Your task to perform on an android device: Open Amazon Image 0: 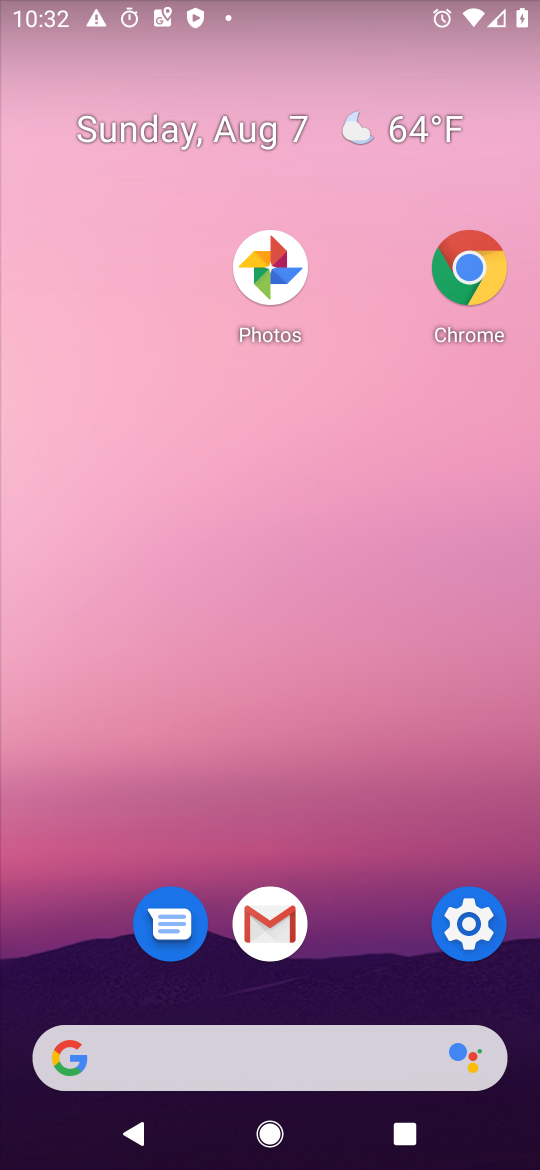
Step 0: press home button
Your task to perform on an android device: Open Amazon Image 1: 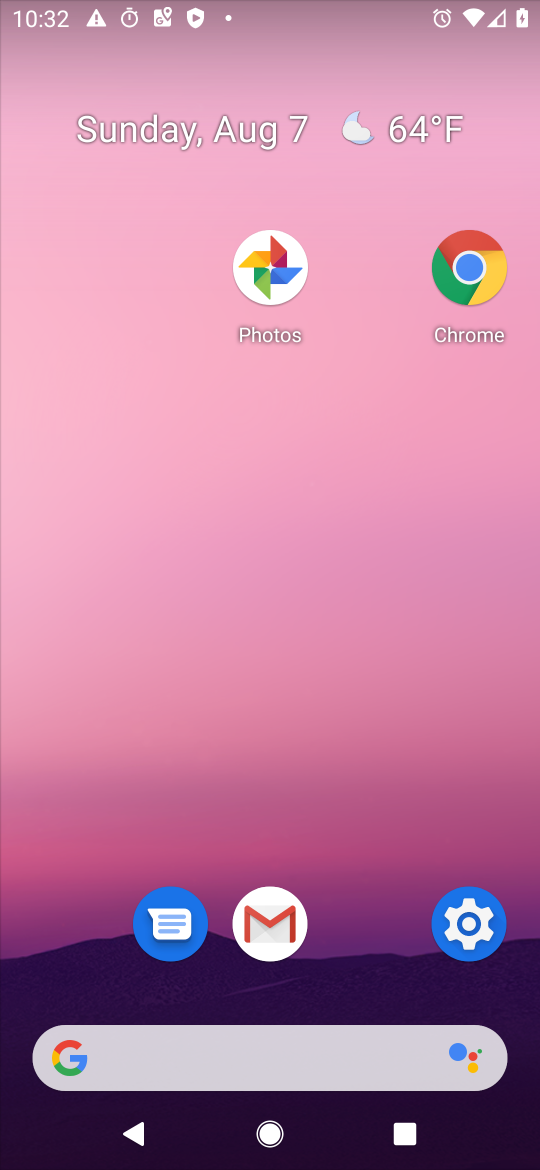
Step 1: drag from (288, 1098) to (215, 412)
Your task to perform on an android device: Open Amazon Image 2: 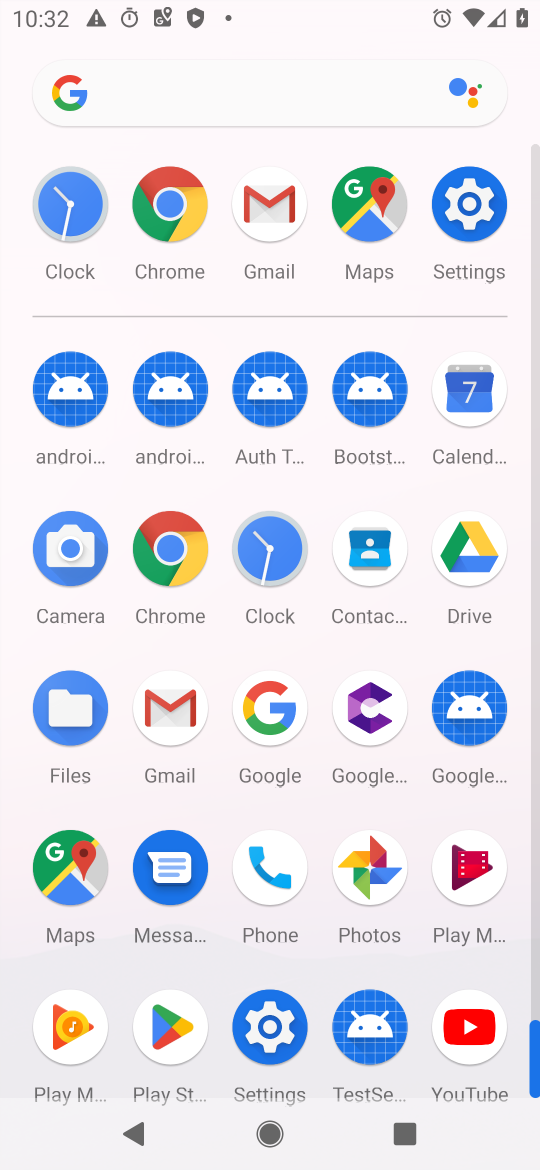
Step 2: click (182, 219)
Your task to perform on an android device: Open Amazon Image 3: 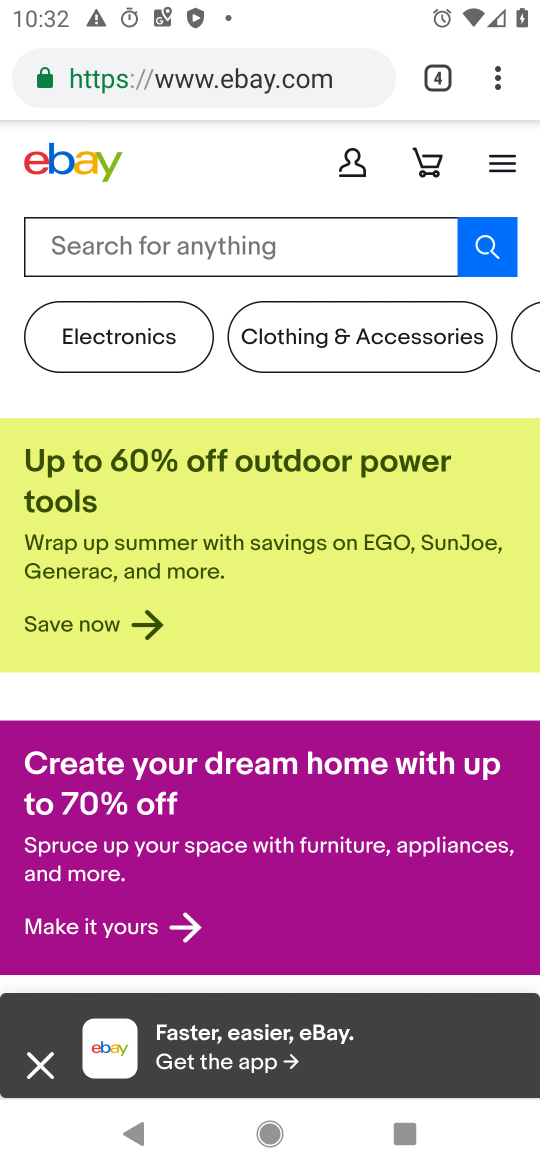
Step 3: click (441, 83)
Your task to perform on an android device: Open Amazon Image 4: 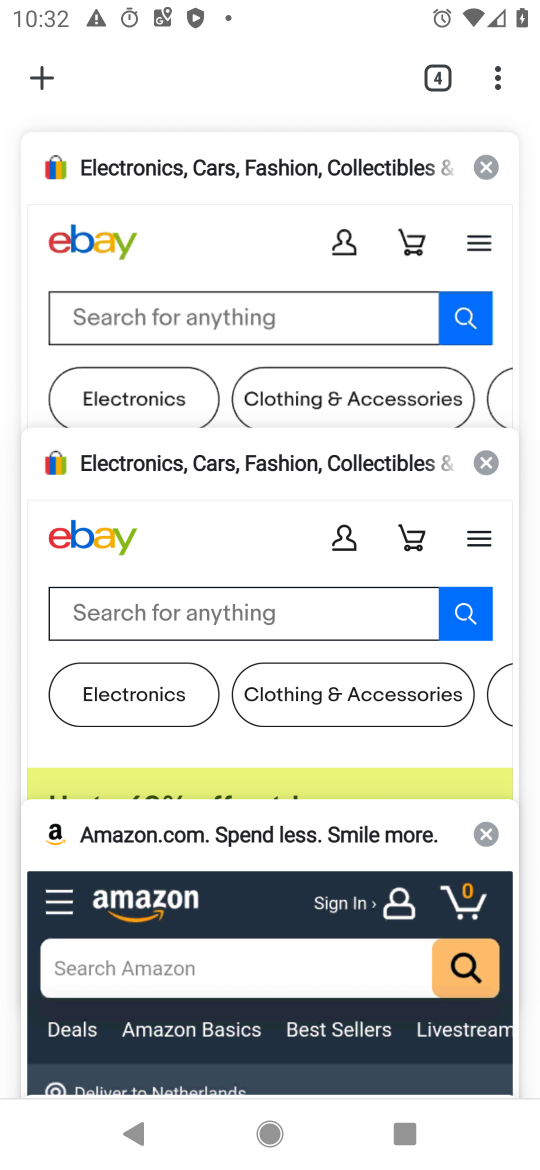
Step 4: click (39, 86)
Your task to perform on an android device: Open Amazon Image 5: 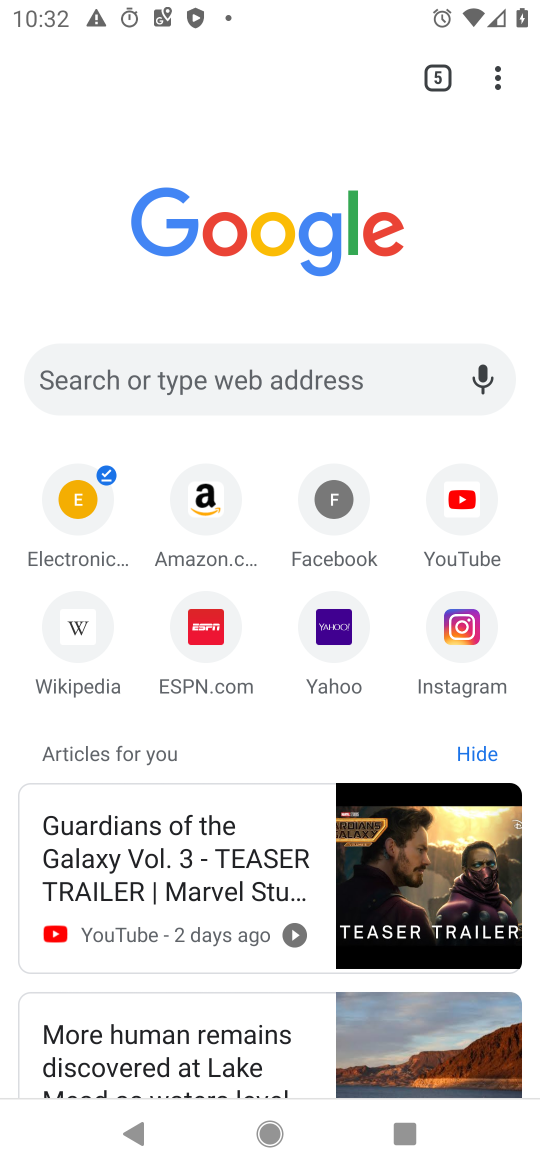
Step 5: click (191, 481)
Your task to perform on an android device: Open Amazon Image 6: 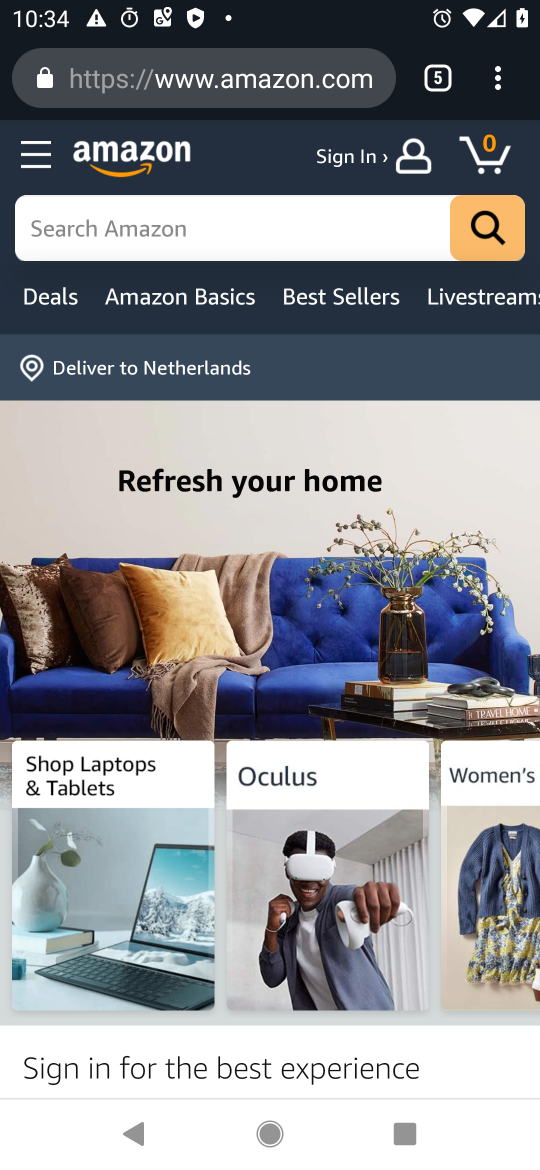
Step 6: task complete